Your task to perform on an android device: choose inbox layout in the gmail app Image 0: 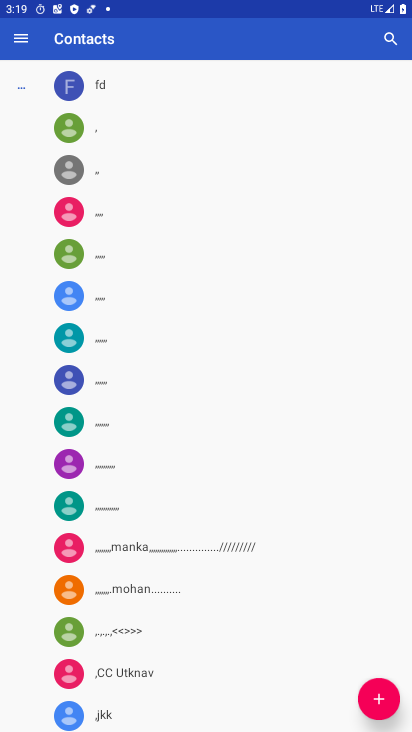
Step 0: press home button
Your task to perform on an android device: choose inbox layout in the gmail app Image 1: 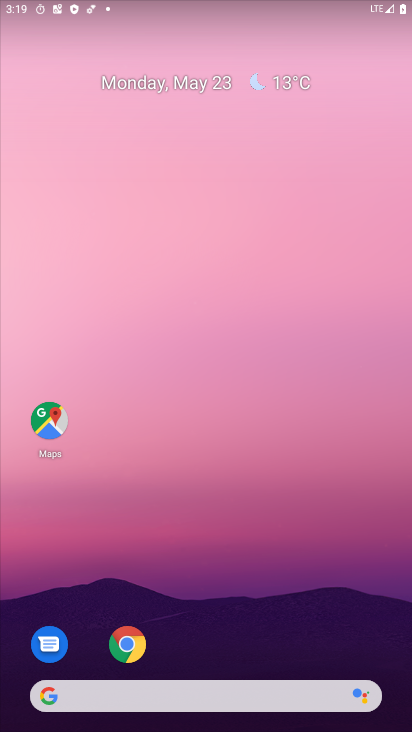
Step 1: drag from (237, 691) to (352, 8)
Your task to perform on an android device: choose inbox layout in the gmail app Image 2: 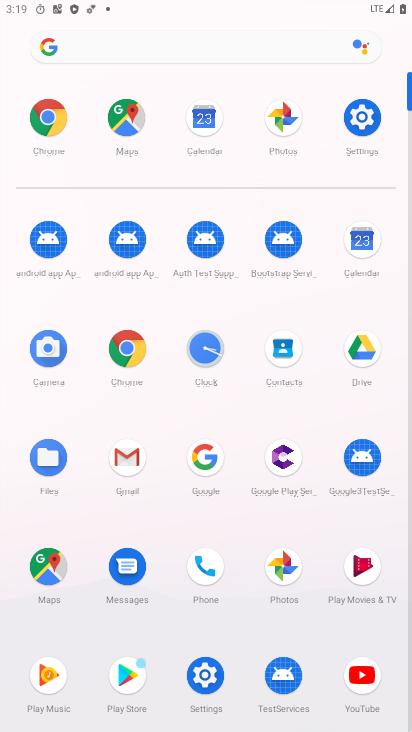
Step 2: click (115, 465)
Your task to perform on an android device: choose inbox layout in the gmail app Image 3: 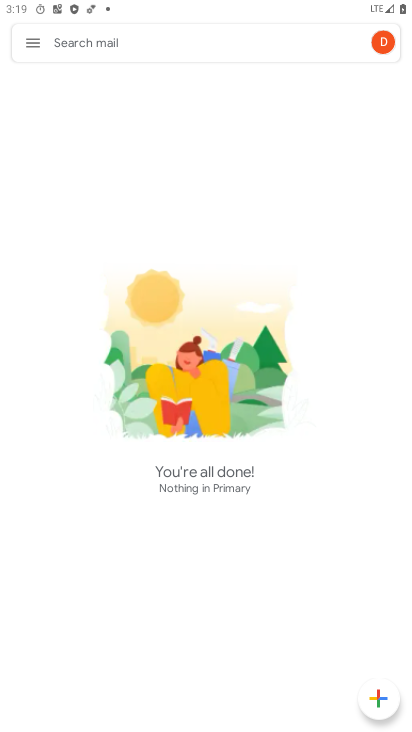
Step 3: click (31, 36)
Your task to perform on an android device: choose inbox layout in the gmail app Image 4: 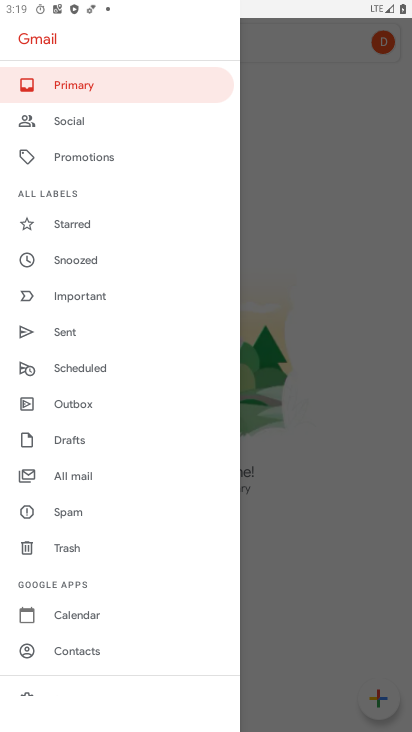
Step 4: drag from (145, 513) to (69, 133)
Your task to perform on an android device: choose inbox layout in the gmail app Image 5: 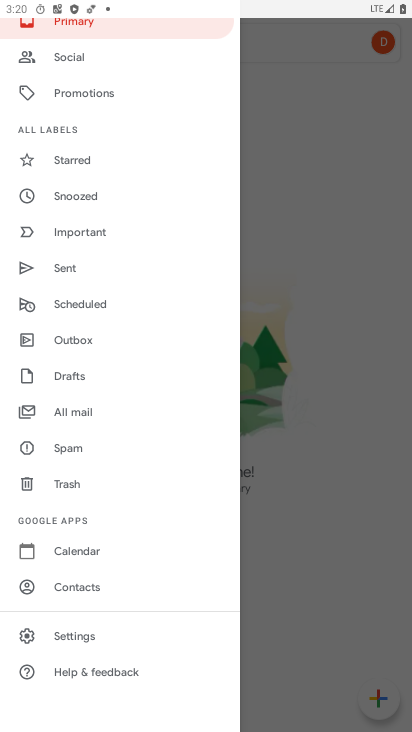
Step 5: click (60, 624)
Your task to perform on an android device: choose inbox layout in the gmail app Image 6: 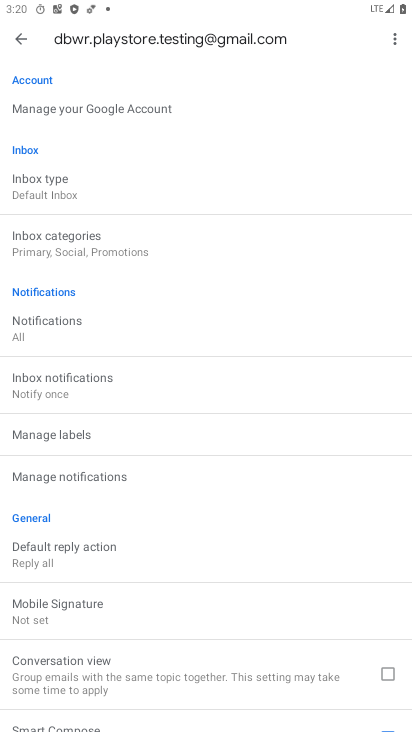
Step 6: click (53, 183)
Your task to perform on an android device: choose inbox layout in the gmail app Image 7: 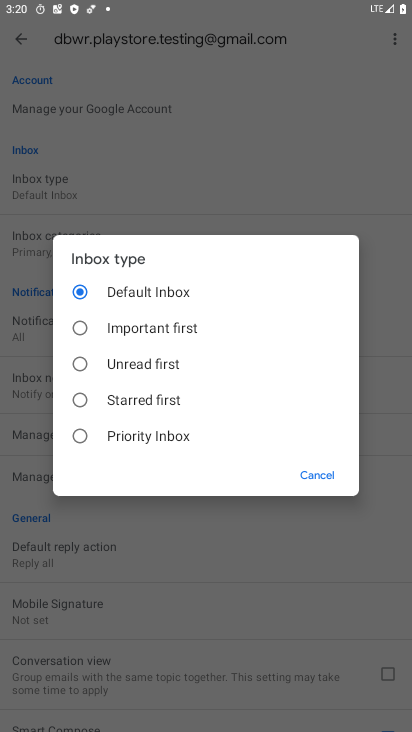
Step 7: click (145, 433)
Your task to perform on an android device: choose inbox layout in the gmail app Image 8: 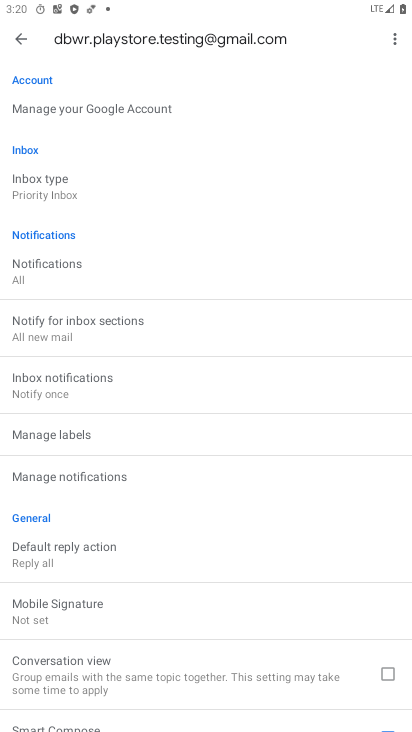
Step 8: click (18, 35)
Your task to perform on an android device: choose inbox layout in the gmail app Image 9: 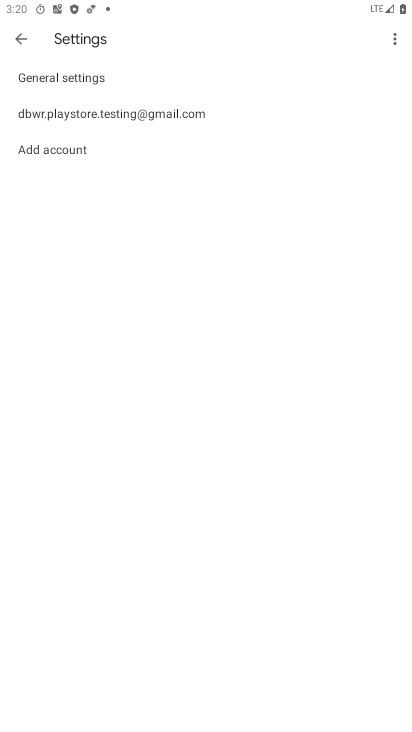
Step 9: click (18, 35)
Your task to perform on an android device: choose inbox layout in the gmail app Image 10: 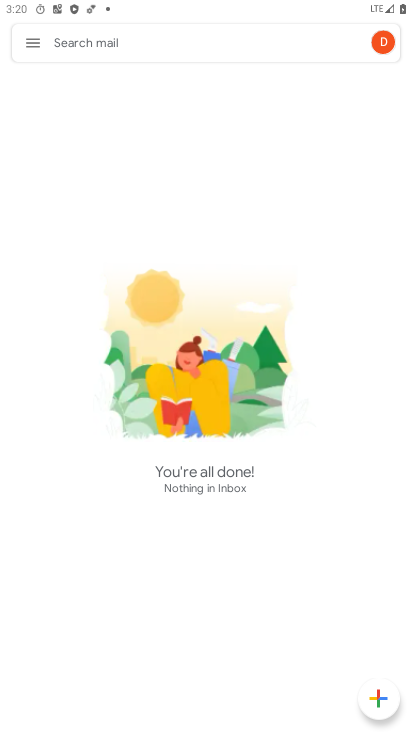
Step 10: task complete